Your task to perform on an android device: turn notification dots off Image 0: 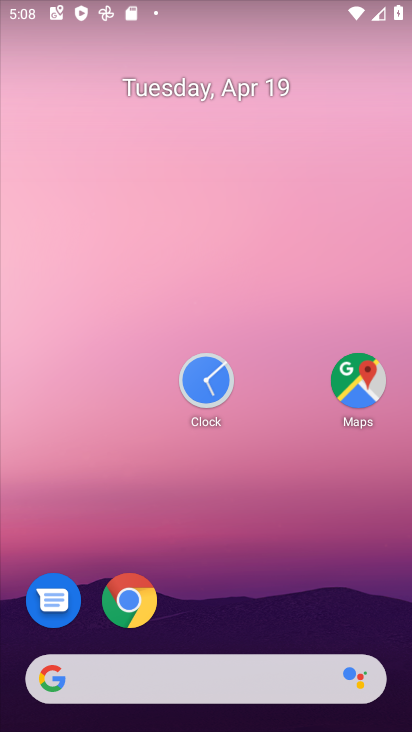
Step 0: drag from (224, 476) to (176, 133)
Your task to perform on an android device: turn notification dots off Image 1: 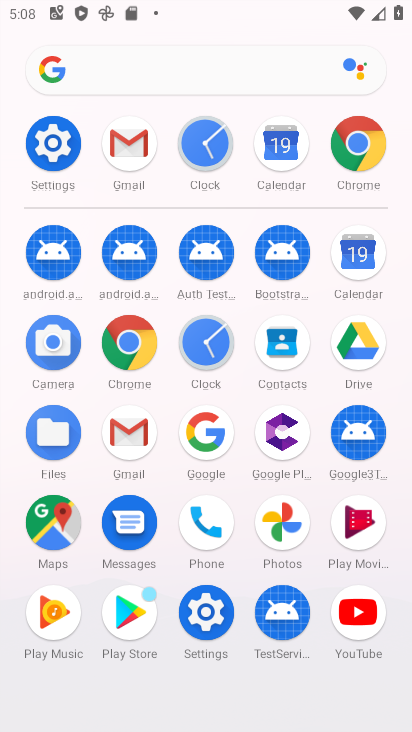
Step 1: click (42, 143)
Your task to perform on an android device: turn notification dots off Image 2: 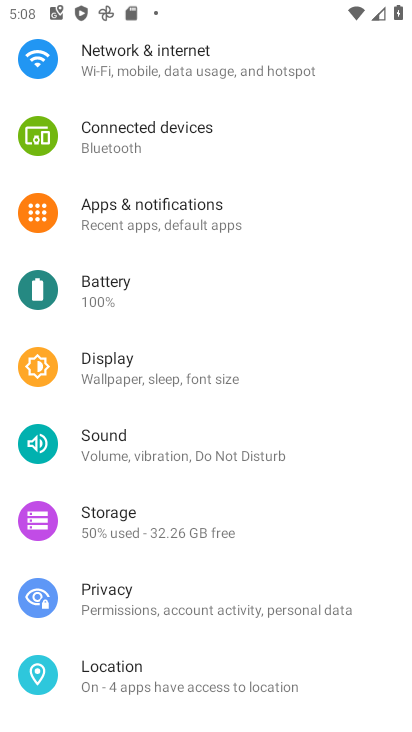
Step 2: click (126, 213)
Your task to perform on an android device: turn notification dots off Image 3: 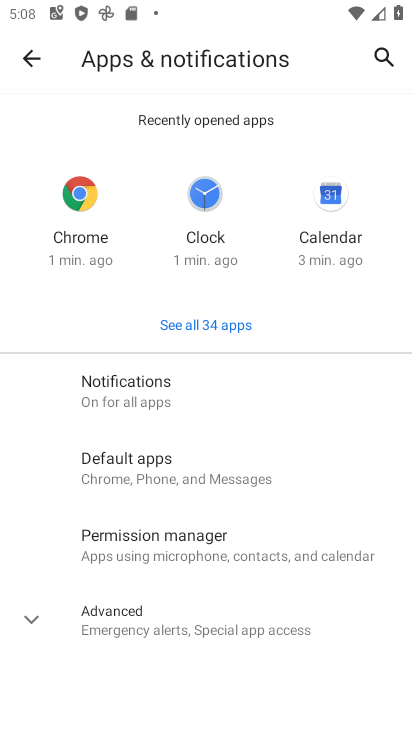
Step 3: click (126, 395)
Your task to perform on an android device: turn notification dots off Image 4: 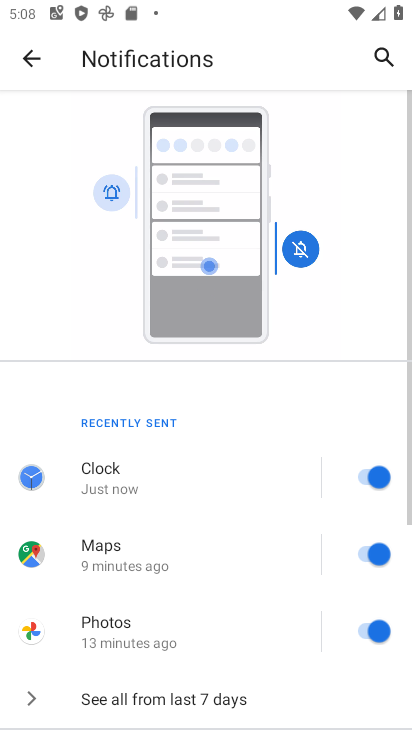
Step 4: drag from (189, 563) to (162, 196)
Your task to perform on an android device: turn notification dots off Image 5: 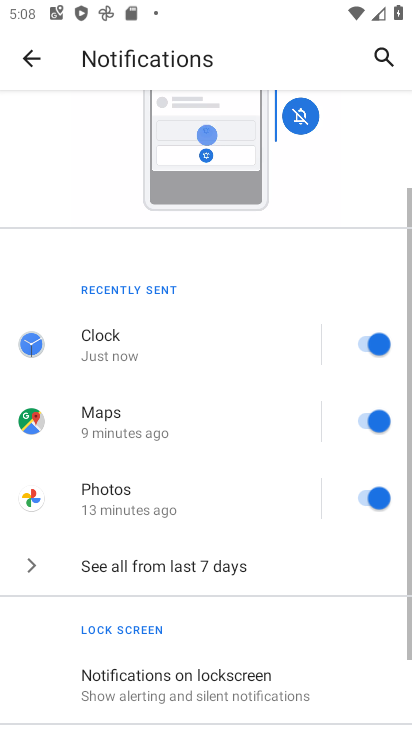
Step 5: drag from (195, 228) to (241, 187)
Your task to perform on an android device: turn notification dots off Image 6: 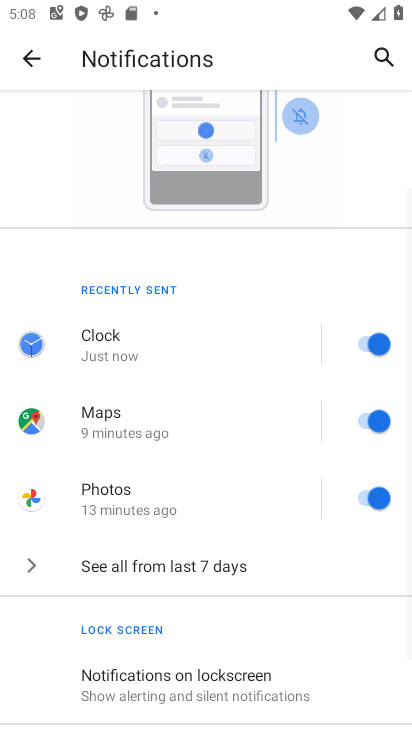
Step 6: drag from (230, 428) to (273, 130)
Your task to perform on an android device: turn notification dots off Image 7: 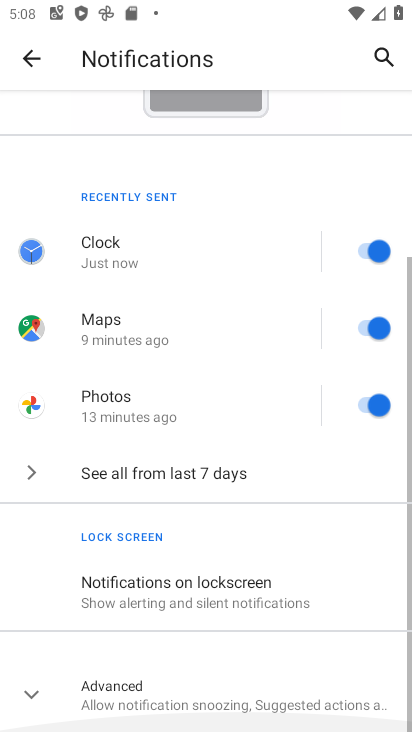
Step 7: drag from (226, 219) to (210, 276)
Your task to perform on an android device: turn notification dots off Image 8: 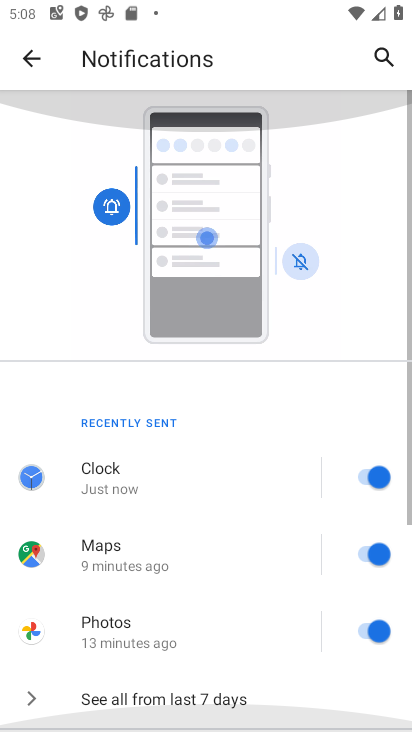
Step 8: drag from (221, 359) to (215, 165)
Your task to perform on an android device: turn notification dots off Image 9: 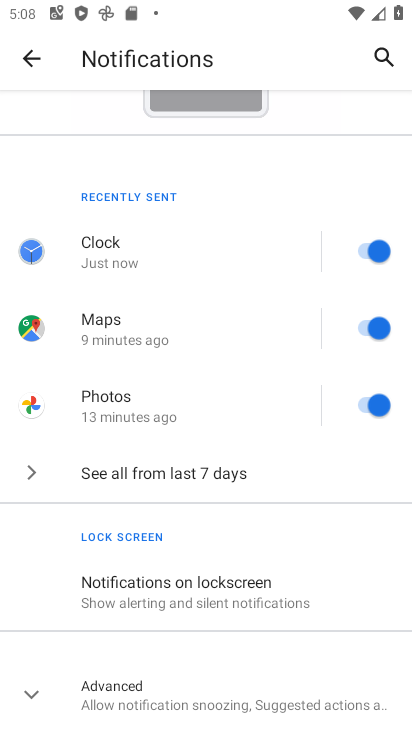
Step 9: drag from (173, 516) to (166, 305)
Your task to perform on an android device: turn notification dots off Image 10: 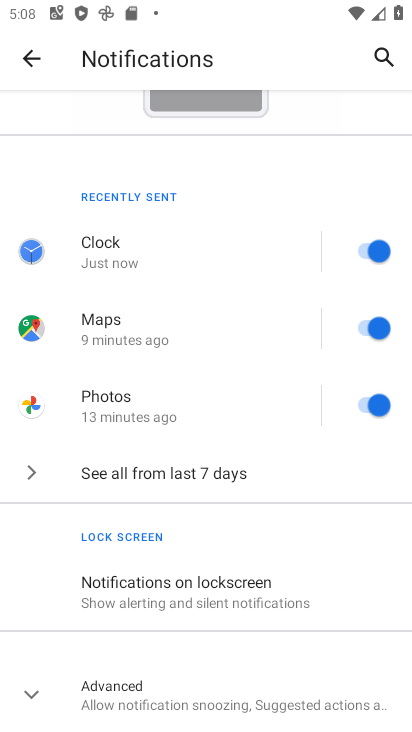
Step 10: drag from (185, 482) to (166, 232)
Your task to perform on an android device: turn notification dots off Image 11: 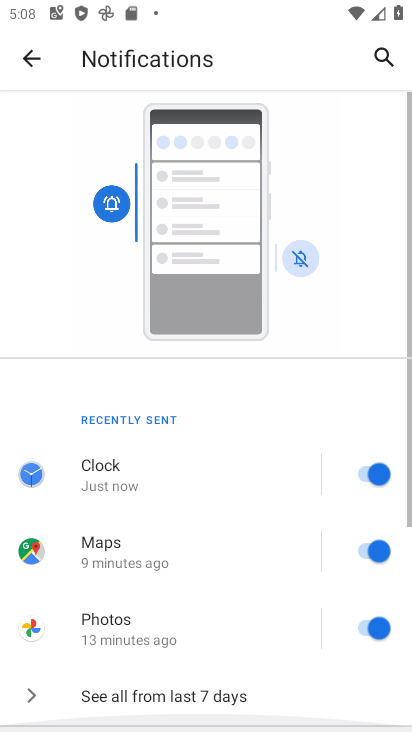
Step 11: drag from (166, 319) to (154, 184)
Your task to perform on an android device: turn notification dots off Image 12: 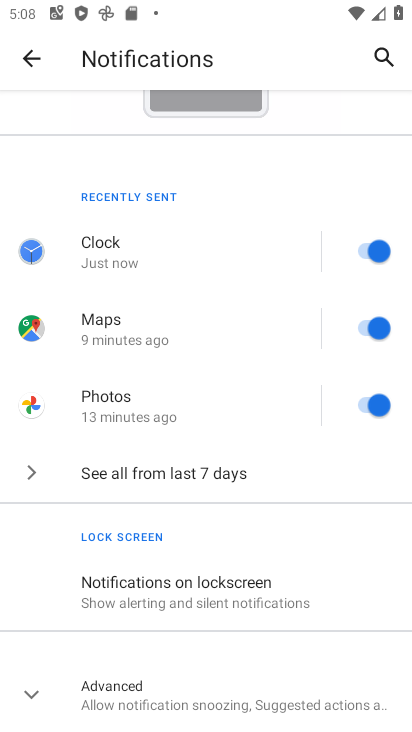
Step 12: click (212, 356)
Your task to perform on an android device: turn notification dots off Image 13: 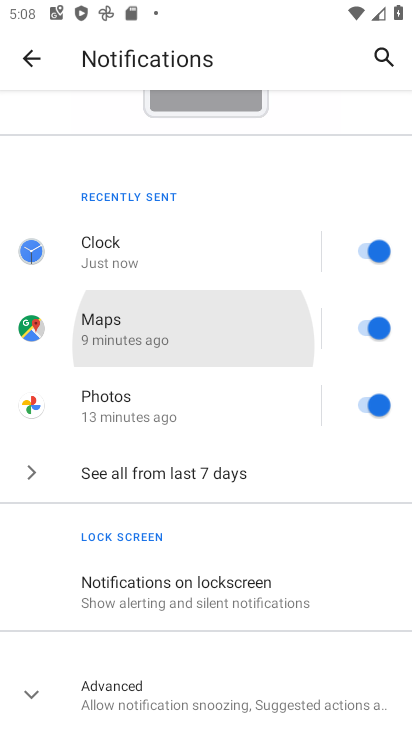
Step 13: drag from (210, 443) to (177, 297)
Your task to perform on an android device: turn notification dots off Image 14: 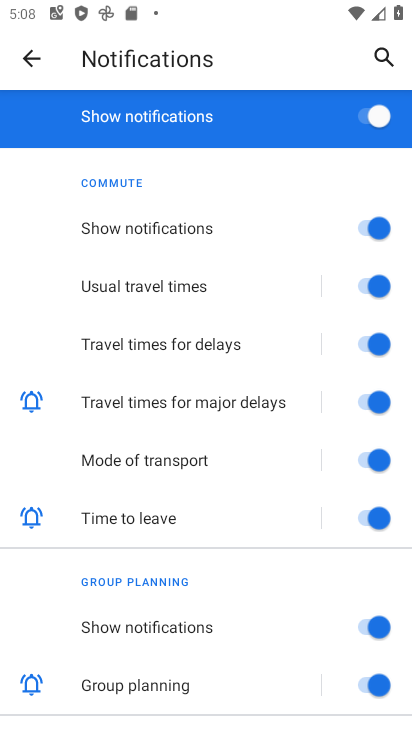
Step 14: drag from (166, 567) to (142, 421)
Your task to perform on an android device: turn notification dots off Image 15: 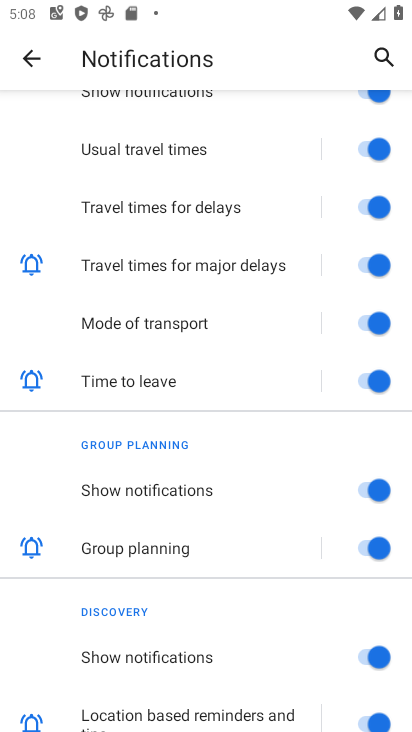
Step 15: drag from (160, 662) to (200, 313)
Your task to perform on an android device: turn notification dots off Image 16: 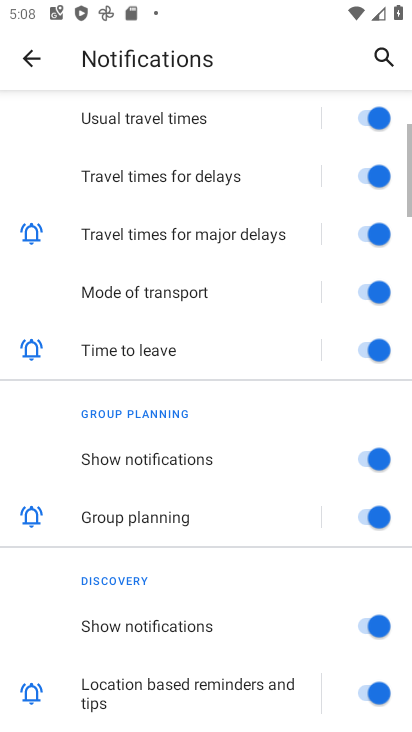
Step 16: drag from (283, 528) to (293, 450)
Your task to perform on an android device: turn notification dots off Image 17: 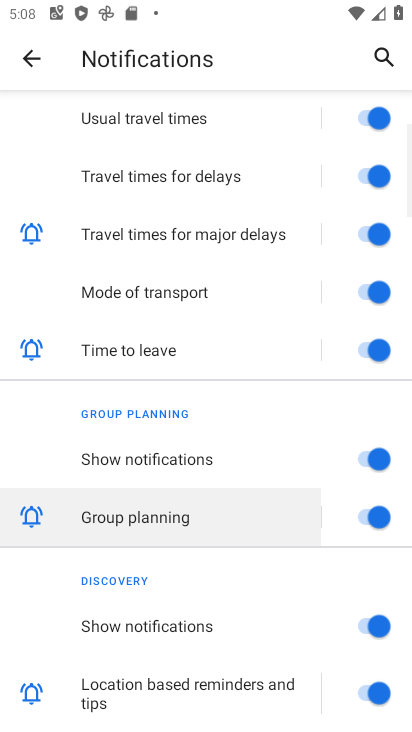
Step 17: drag from (241, 611) to (269, 412)
Your task to perform on an android device: turn notification dots off Image 18: 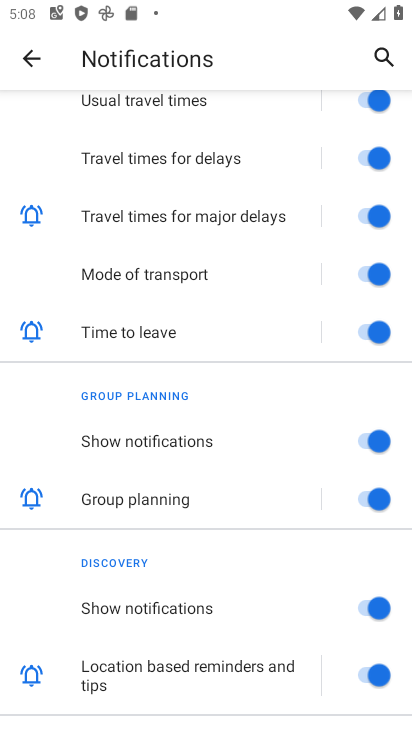
Step 18: click (38, 62)
Your task to perform on an android device: turn notification dots off Image 19: 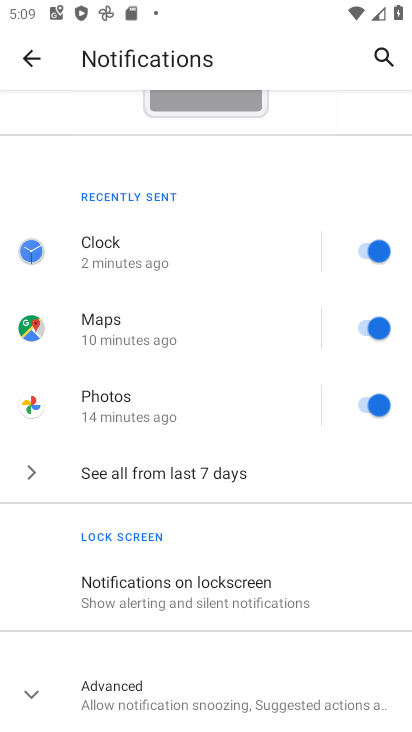
Step 19: click (133, 691)
Your task to perform on an android device: turn notification dots off Image 20: 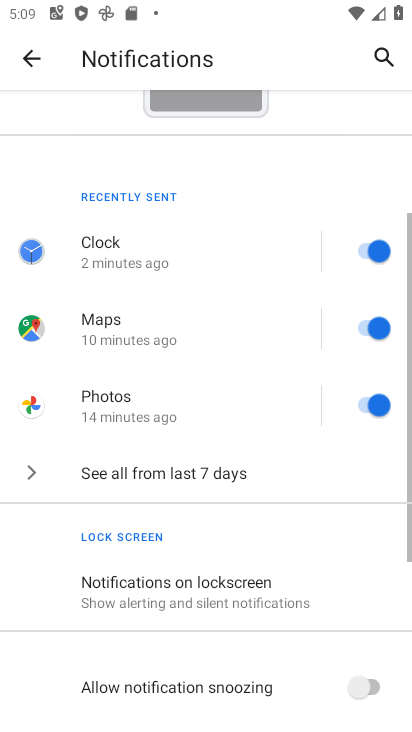
Step 20: drag from (193, 675) to (200, 366)
Your task to perform on an android device: turn notification dots off Image 21: 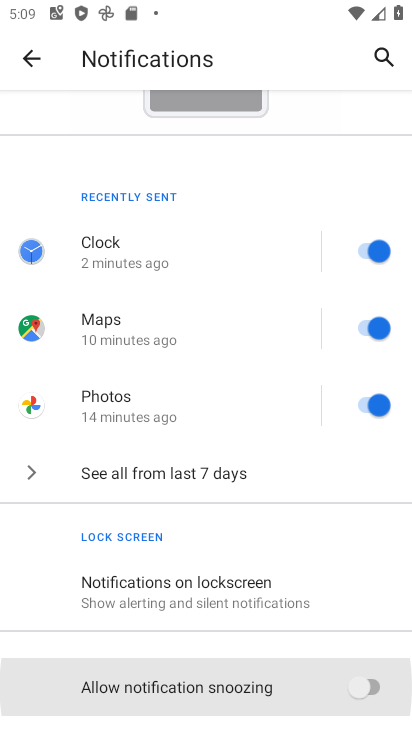
Step 21: drag from (205, 646) to (240, 272)
Your task to perform on an android device: turn notification dots off Image 22: 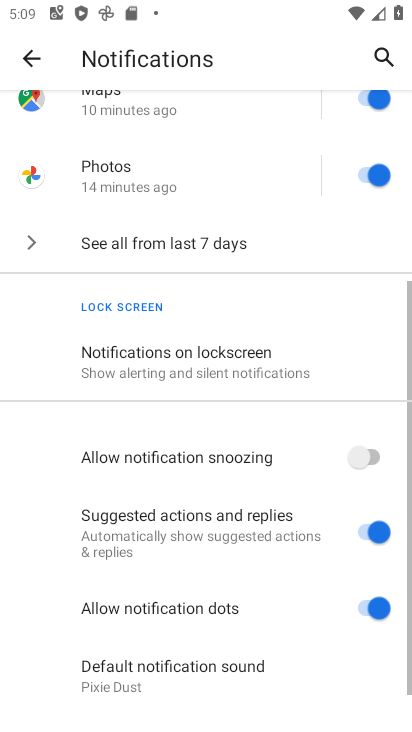
Step 22: drag from (249, 505) to (266, 172)
Your task to perform on an android device: turn notification dots off Image 23: 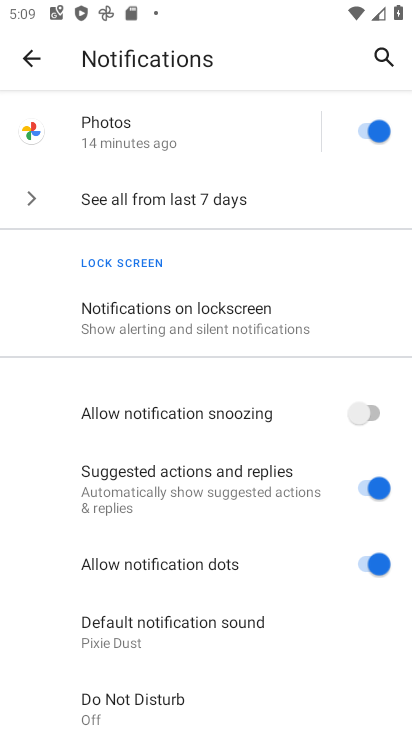
Step 23: click (374, 563)
Your task to perform on an android device: turn notification dots off Image 24: 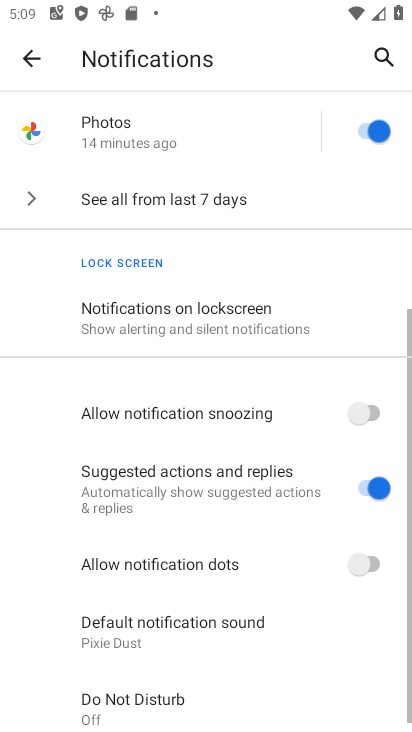
Step 24: click (373, 562)
Your task to perform on an android device: turn notification dots off Image 25: 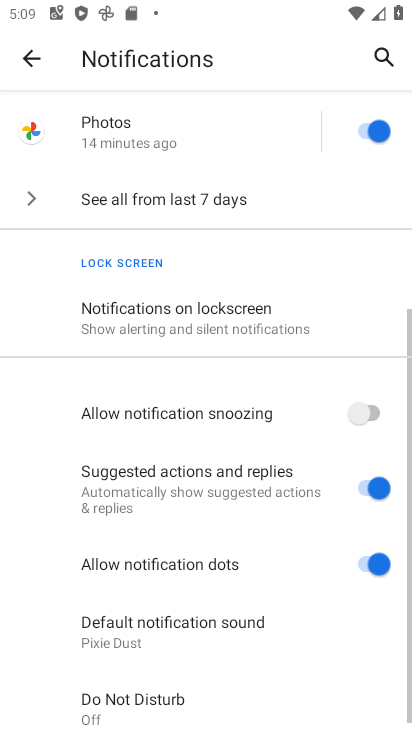
Step 25: task complete